Your task to perform on an android device: turn off notifications settings in the gmail app Image 0: 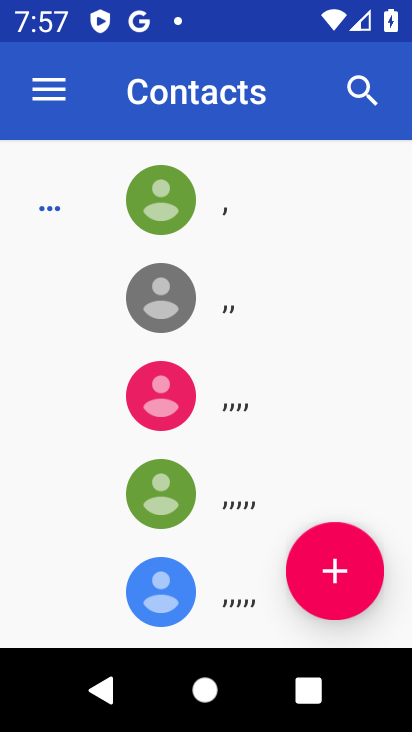
Step 0: press home button
Your task to perform on an android device: turn off notifications settings in the gmail app Image 1: 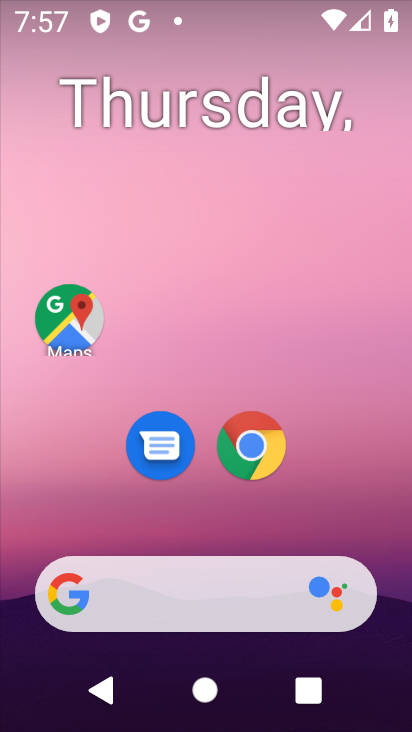
Step 1: drag from (366, 506) to (355, 79)
Your task to perform on an android device: turn off notifications settings in the gmail app Image 2: 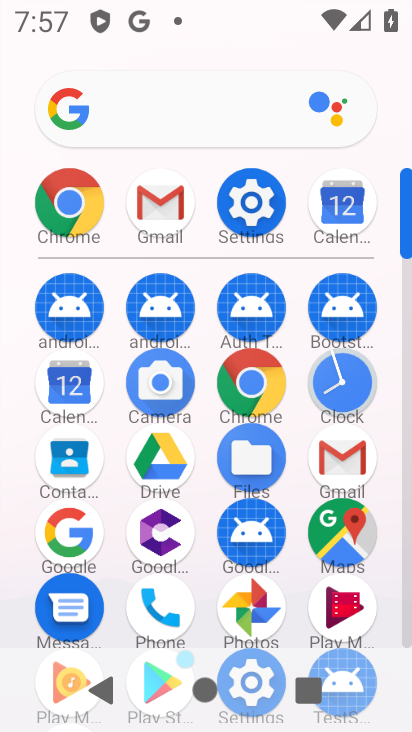
Step 2: click (368, 475)
Your task to perform on an android device: turn off notifications settings in the gmail app Image 3: 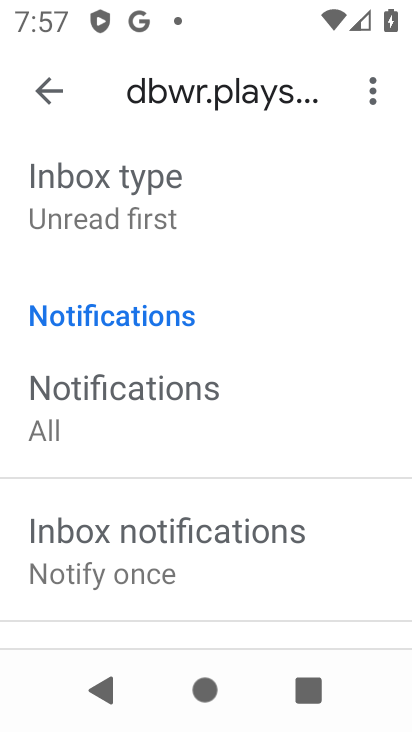
Step 3: click (169, 404)
Your task to perform on an android device: turn off notifications settings in the gmail app Image 4: 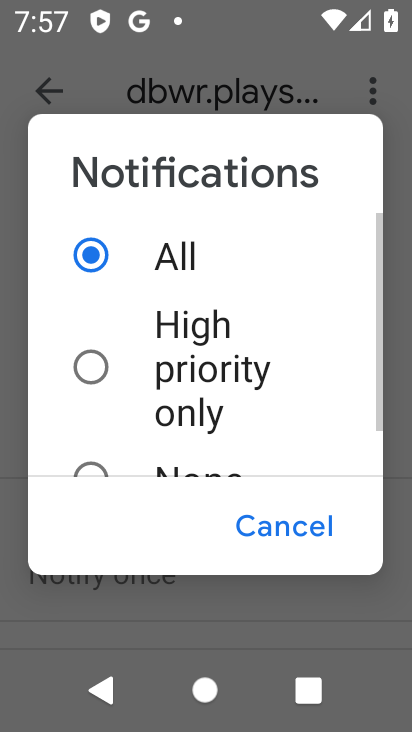
Step 4: drag from (99, 440) to (161, 209)
Your task to perform on an android device: turn off notifications settings in the gmail app Image 5: 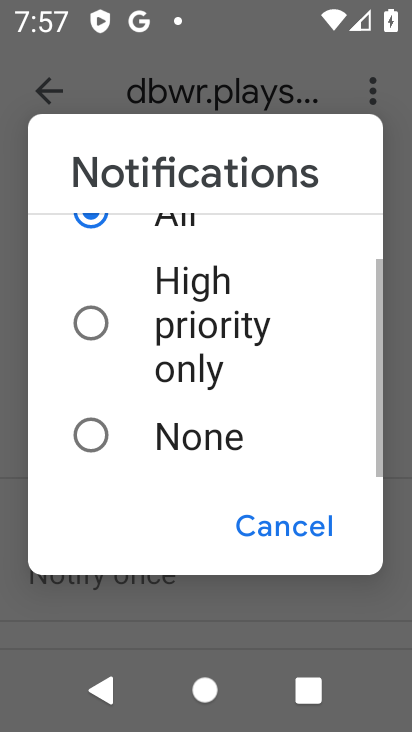
Step 5: click (94, 444)
Your task to perform on an android device: turn off notifications settings in the gmail app Image 6: 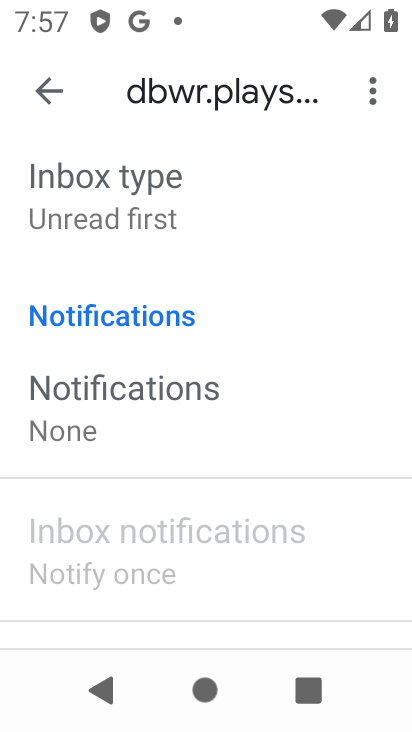
Step 6: task complete